Your task to perform on an android device: Go to notification settings Image 0: 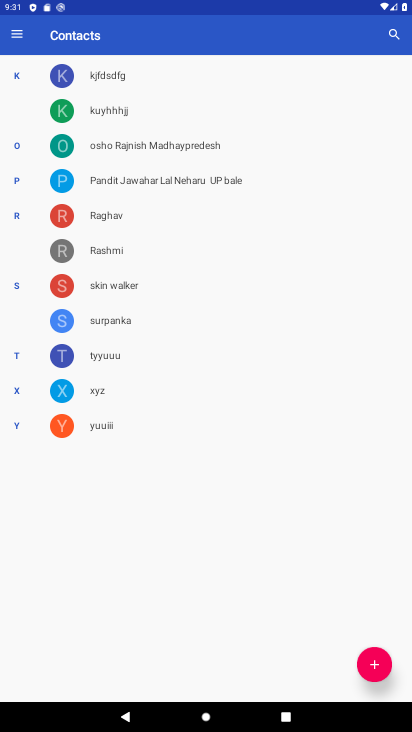
Step 0: press home button
Your task to perform on an android device: Go to notification settings Image 1: 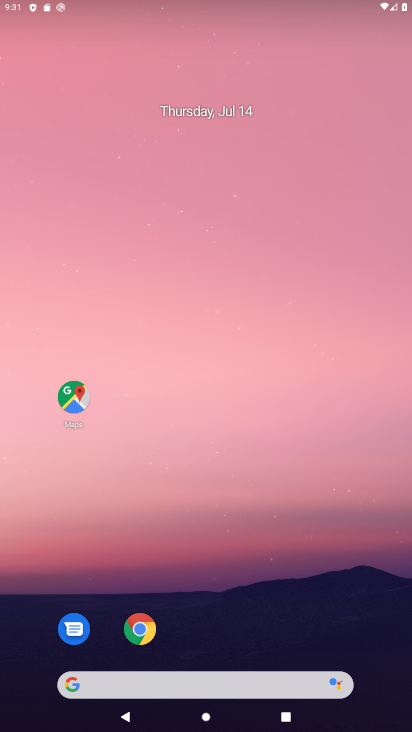
Step 1: drag from (266, 623) to (308, 91)
Your task to perform on an android device: Go to notification settings Image 2: 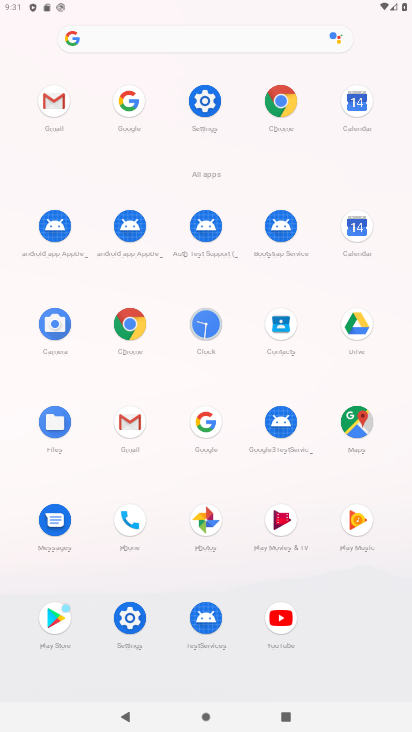
Step 2: click (206, 101)
Your task to perform on an android device: Go to notification settings Image 3: 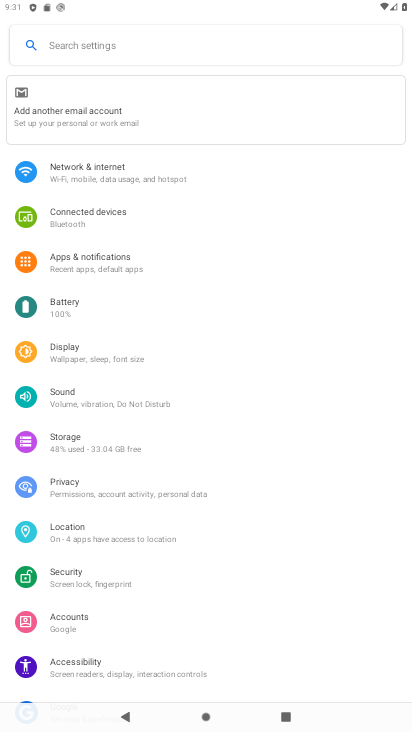
Step 3: click (74, 261)
Your task to perform on an android device: Go to notification settings Image 4: 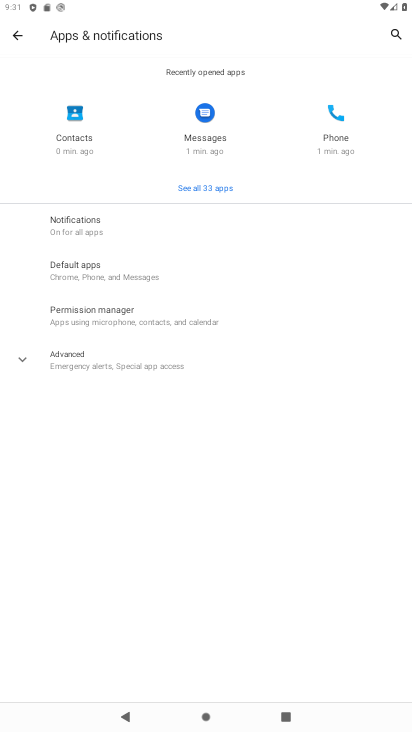
Step 4: click (110, 215)
Your task to perform on an android device: Go to notification settings Image 5: 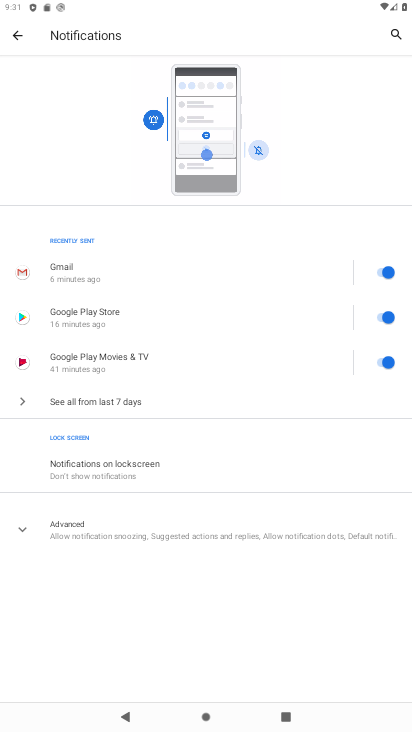
Step 5: task complete